Your task to perform on an android device: clear history in the chrome app Image 0: 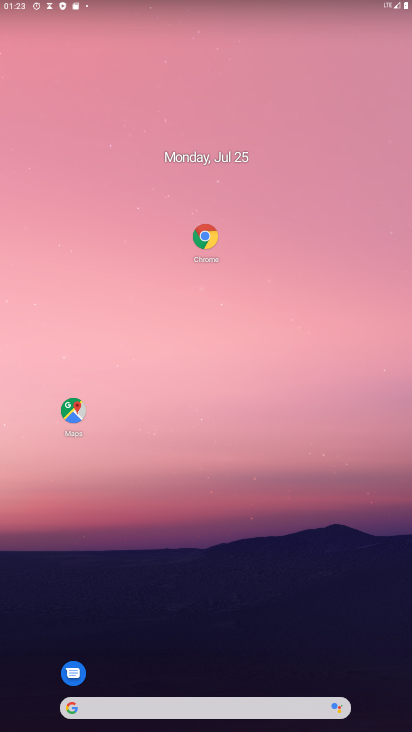
Step 0: drag from (217, 671) to (230, 9)
Your task to perform on an android device: clear history in the chrome app Image 1: 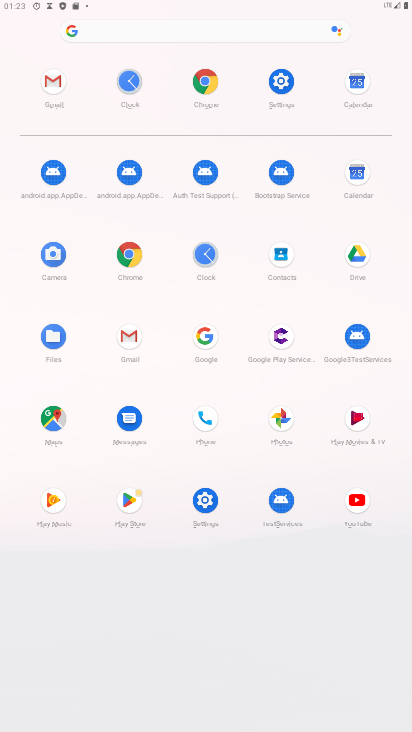
Step 1: click (135, 263)
Your task to perform on an android device: clear history in the chrome app Image 2: 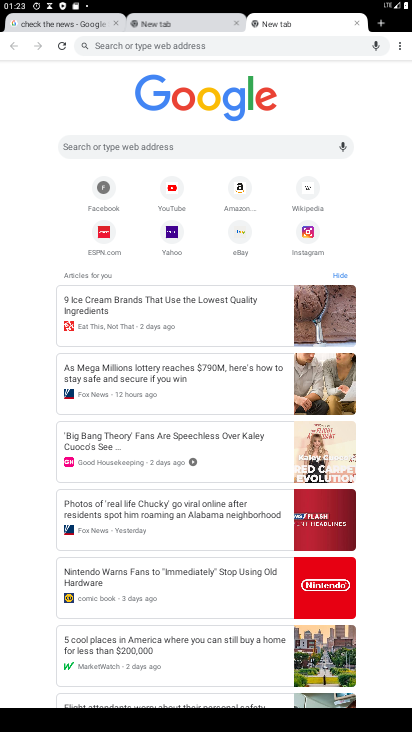
Step 2: drag from (401, 46) to (318, 139)
Your task to perform on an android device: clear history in the chrome app Image 3: 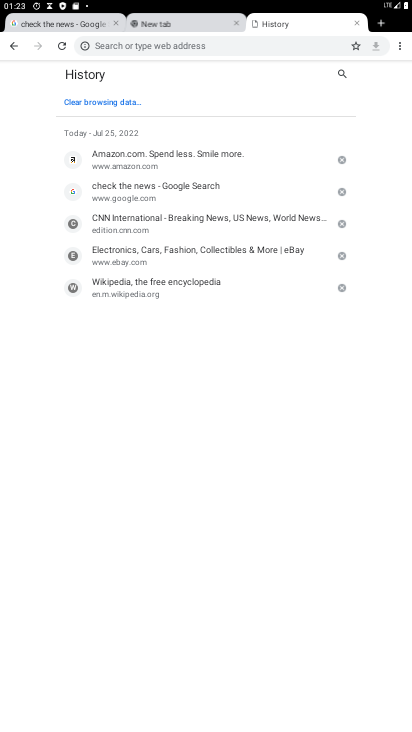
Step 3: click (121, 102)
Your task to perform on an android device: clear history in the chrome app Image 4: 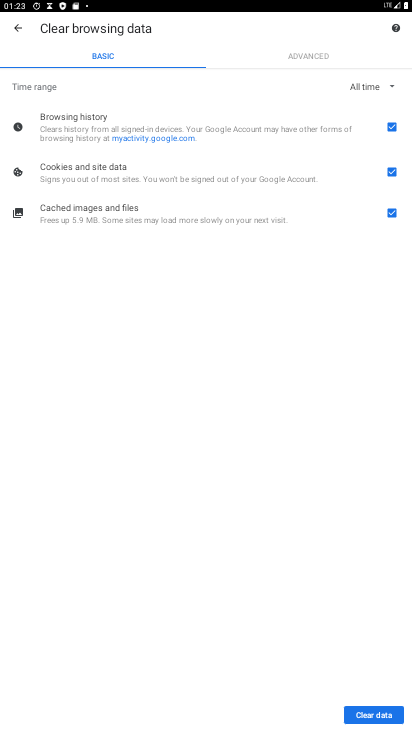
Step 4: click (384, 712)
Your task to perform on an android device: clear history in the chrome app Image 5: 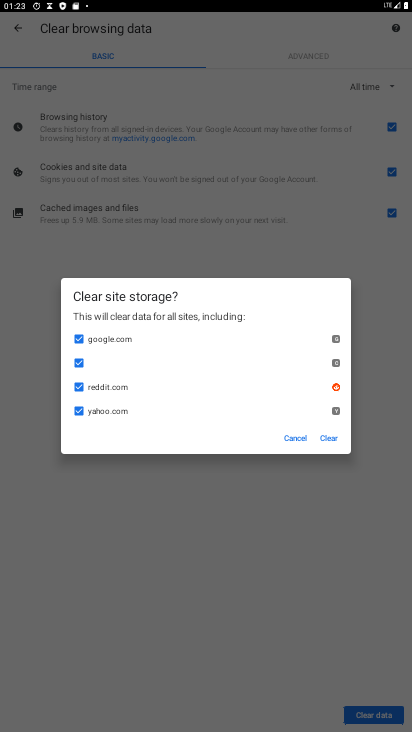
Step 5: click (331, 440)
Your task to perform on an android device: clear history in the chrome app Image 6: 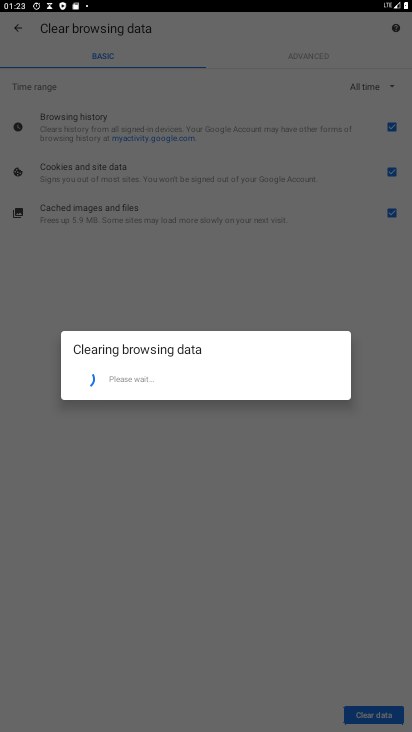
Step 6: task complete